Your task to perform on an android device: turn notification dots off Image 0: 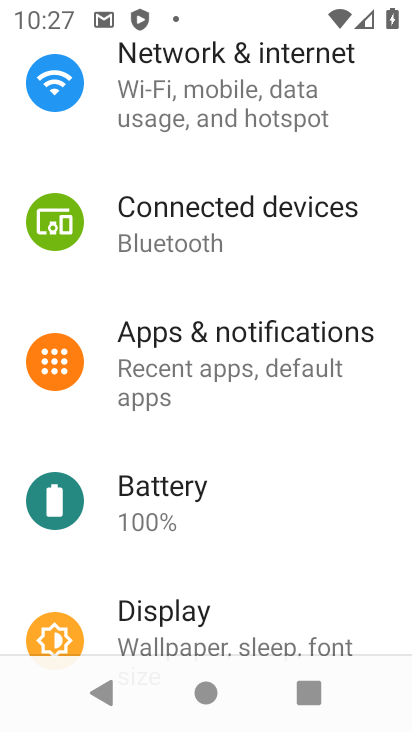
Step 0: press home button
Your task to perform on an android device: turn notification dots off Image 1: 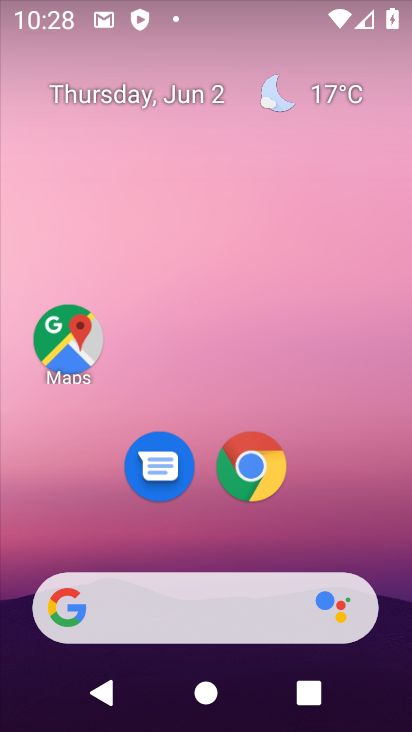
Step 1: drag from (297, 533) to (4, 44)
Your task to perform on an android device: turn notification dots off Image 2: 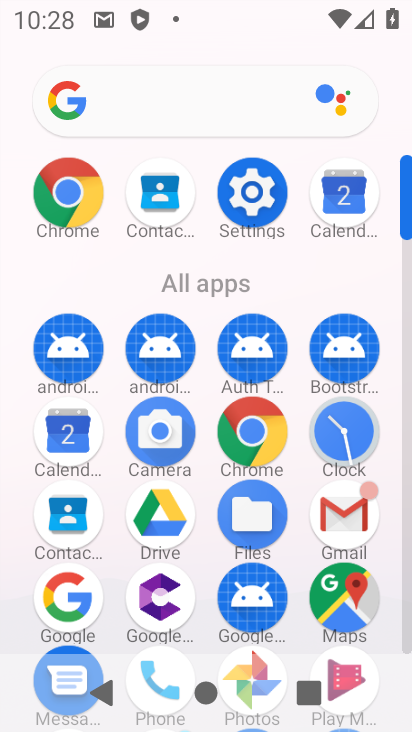
Step 2: click (267, 198)
Your task to perform on an android device: turn notification dots off Image 3: 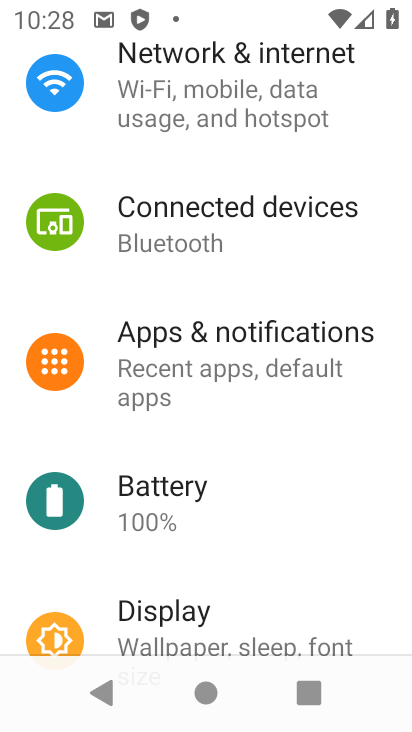
Step 3: click (247, 352)
Your task to perform on an android device: turn notification dots off Image 4: 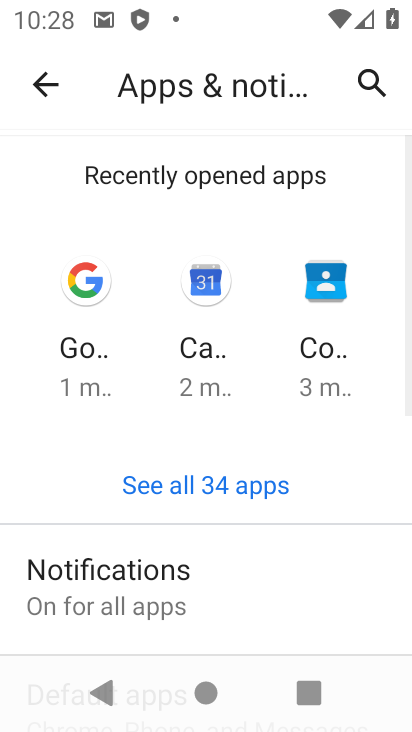
Step 4: click (101, 572)
Your task to perform on an android device: turn notification dots off Image 5: 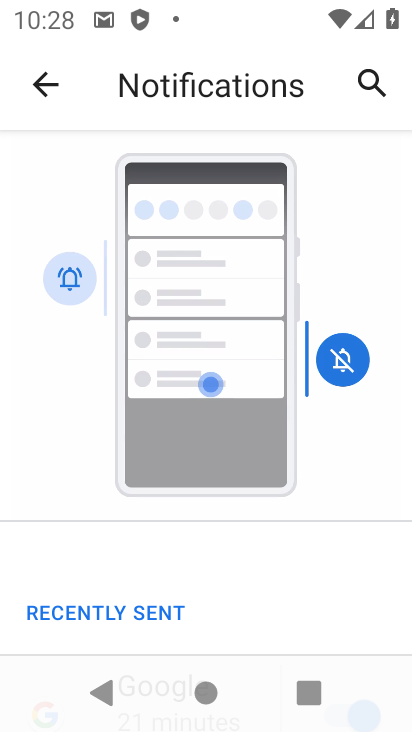
Step 5: drag from (303, 572) to (306, 143)
Your task to perform on an android device: turn notification dots off Image 6: 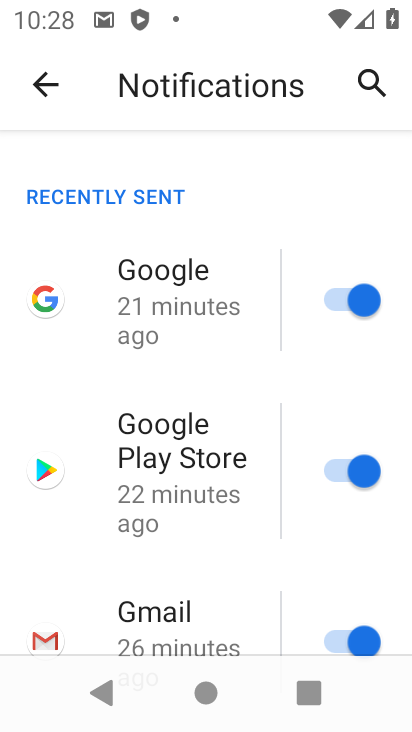
Step 6: drag from (307, 578) to (318, 166)
Your task to perform on an android device: turn notification dots off Image 7: 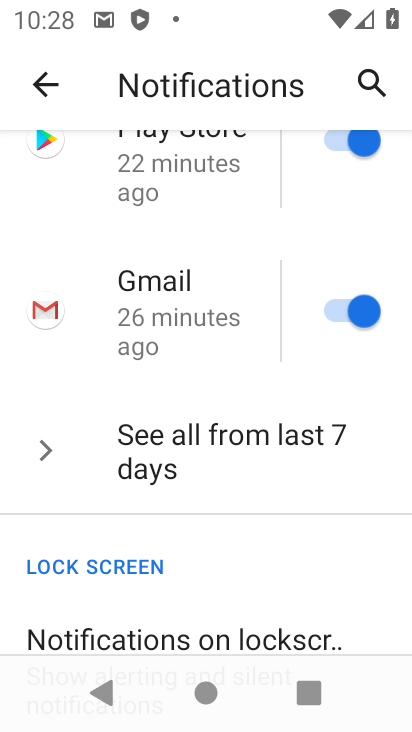
Step 7: drag from (240, 562) to (266, 176)
Your task to perform on an android device: turn notification dots off Image 8: 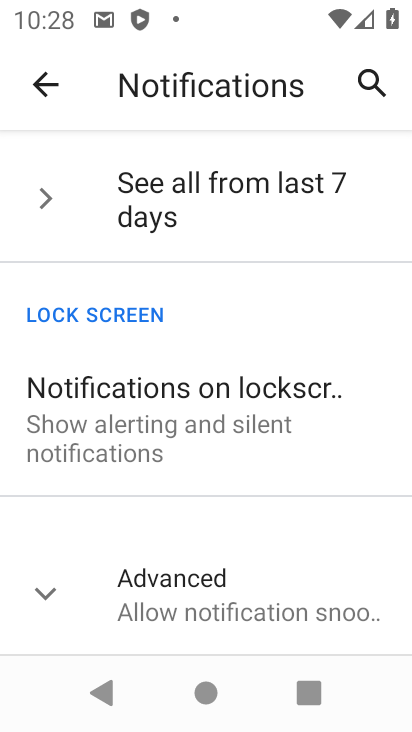
Step 8: drag from (247, 539) to (249, 220)
Your task to perform on an android device: turn notification dots off Image 9: 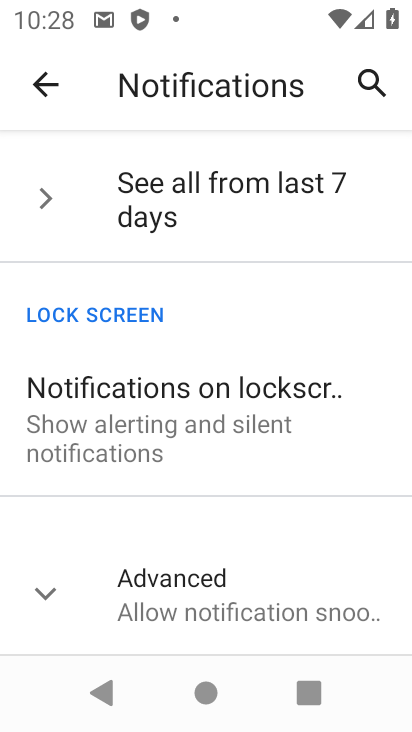
Step 9: click (148, 585)
Your task to perform on an android device: turn notification dots off Image 10: 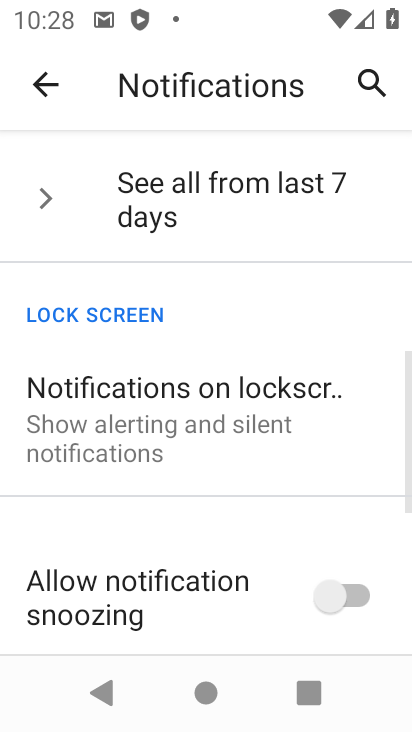
Step 10: drag from (270, 537) to (290, 30)
Your task to perform on an android device: turn notification dots off Image 11: 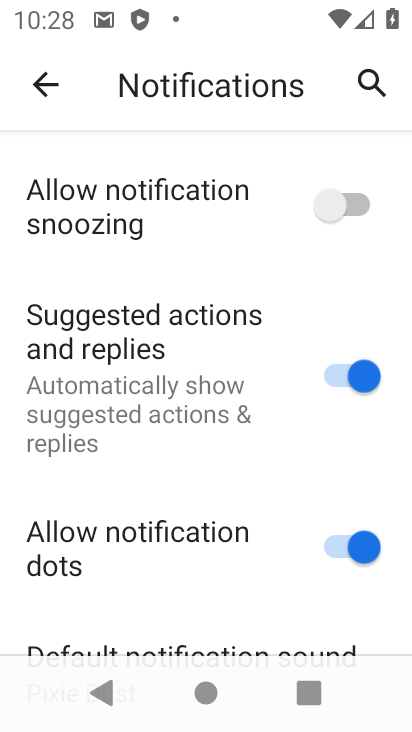
Step 11: click (360, 554)
Your task to perform on an android device: turn notification dots off Image 12: 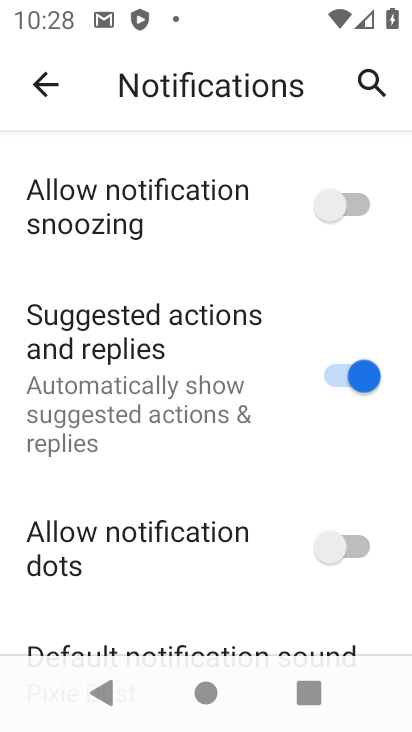
Step 12: task complete